Your task to perform on an android device: change your default location settings in chrome Image 0: 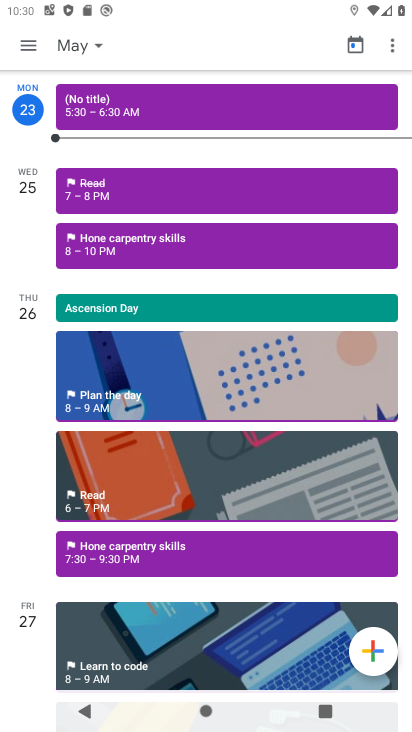
Step 0: press home button
Your task to perform on an android device: change your default location settings in chrome Image 1: 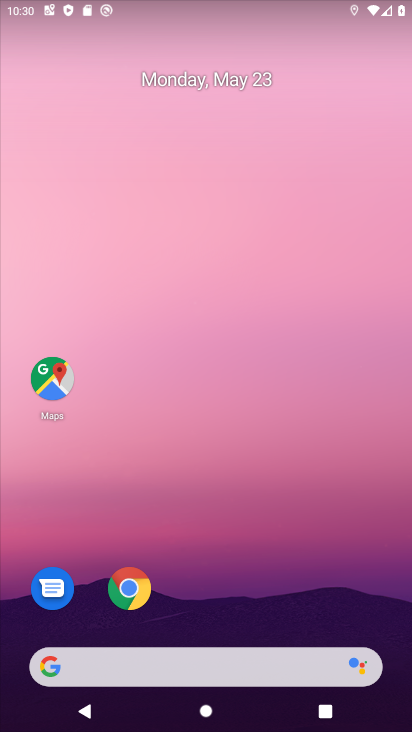
Step 1: click (131, 587)
Your task to perform on an android device: change your default location settings in chrome Image 2: 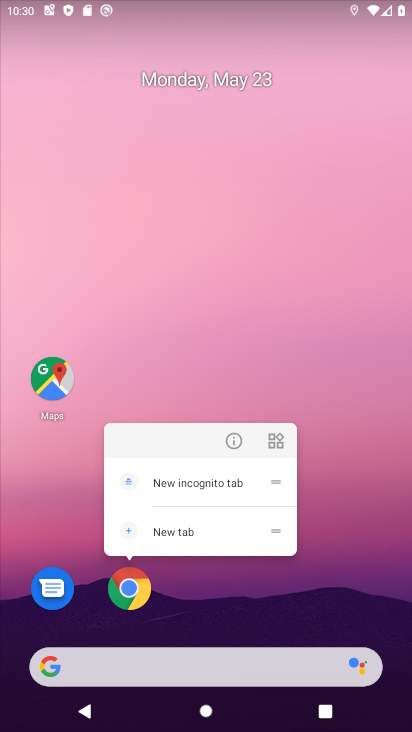
Step 2: click (130, 584)
Your task to perform on an android device: change your default location settings in chrome Image 3: 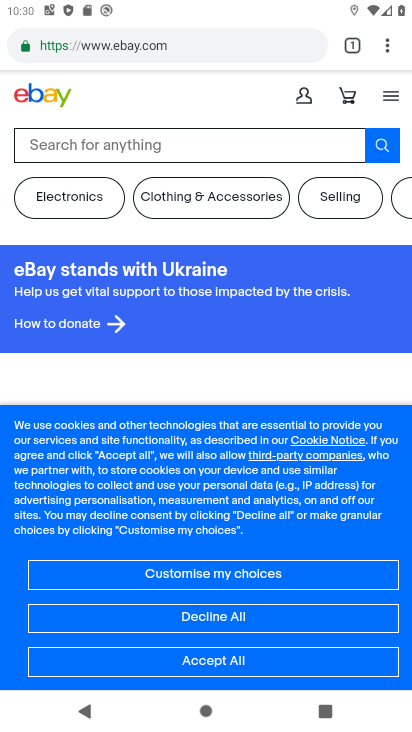
Step 3: drag from (386, 39) to (240, 555)
Your task to perform on an android device: change your default location settings in chrome Image 4: 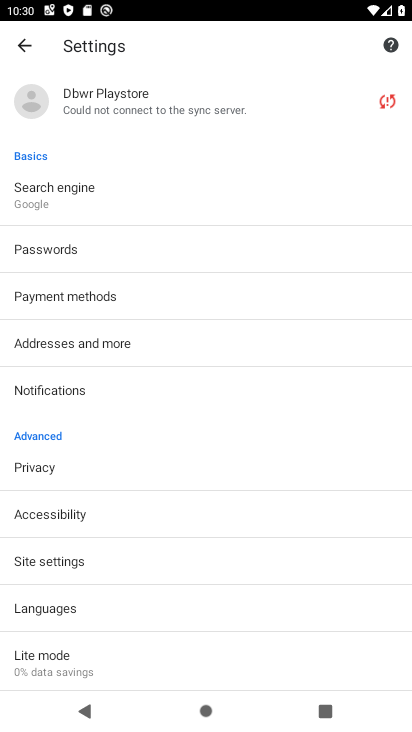
Step 4: drag from (167, 581) to (218, 329)
Your task to perform on an android device: change your default location settings in chrome Image 5: 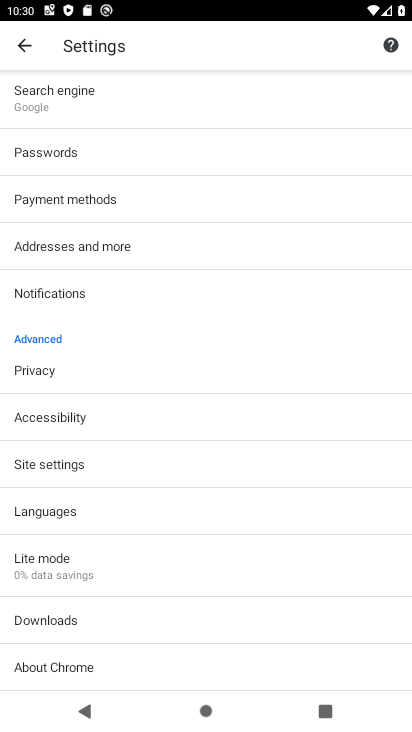
Step 5: click (46, 471)
Your task to perform on an android device: change your default location settings in chrome Image 6: 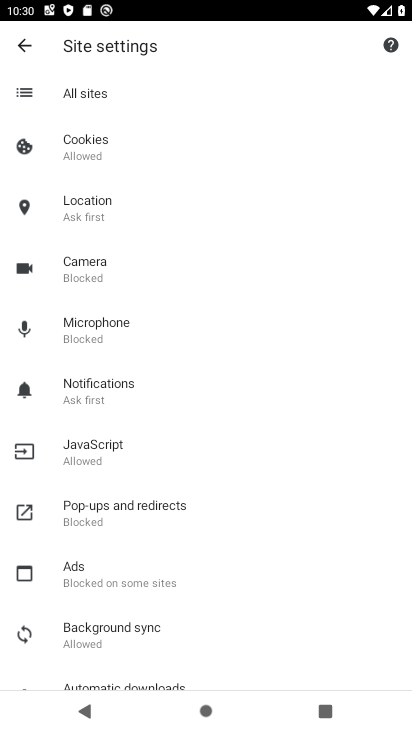
Step 6: click (82, 222)
Your task to perform on an android device: change your default location settings in chrome Image 7: 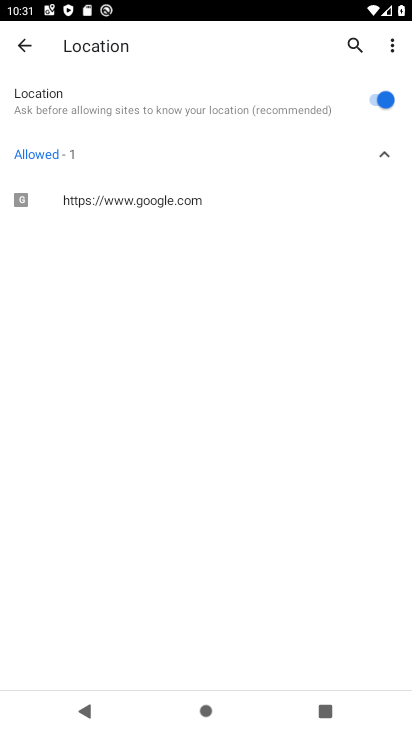
Step 7: click (372, 95)
Your task to perform on an android device: change your default location settings in chrome Image 8: 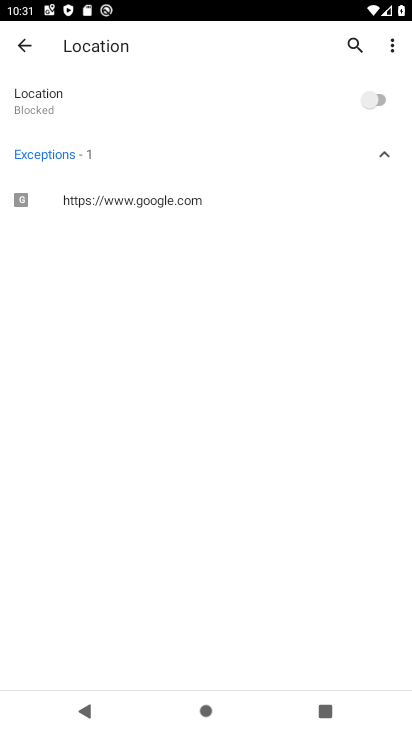
Step 8: task complete